Your task to perform on an android device: What's the weather? Image 0: 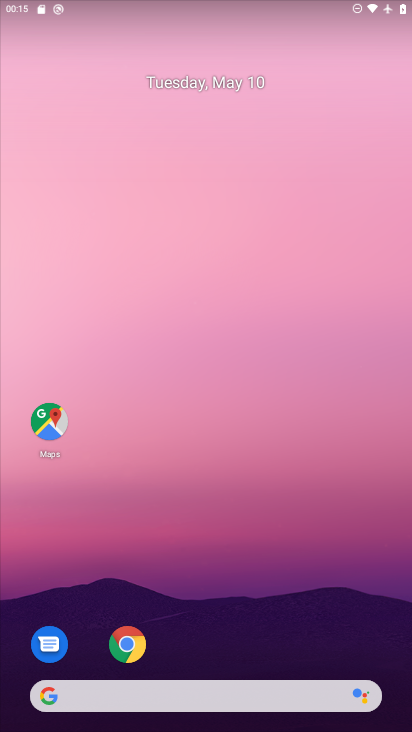
Step 0: drag from (218, 567) to (205, 318)
Your task to perform on an android device: What's the weather? Image 1: 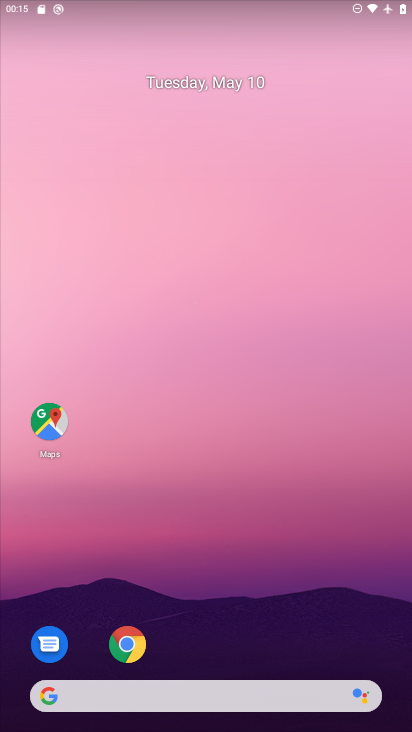
Step 1: drag from (260, 649) to (257, 148)
Your task to perform on an android device: What's the weather? Image 2: 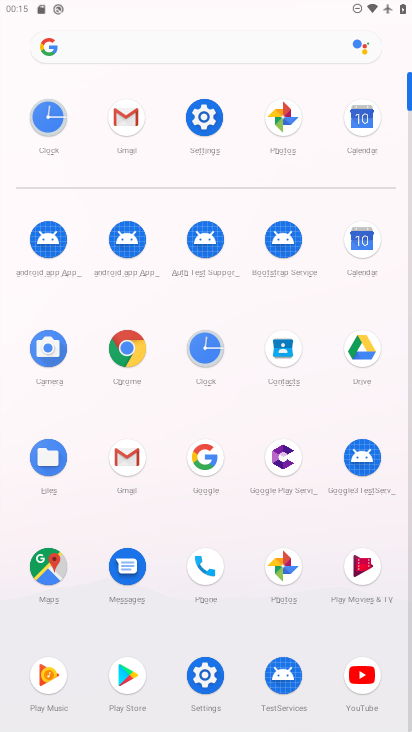
Step 2: click (200, 452)
Your task to perform on an android device: What's the weather? Image 3: 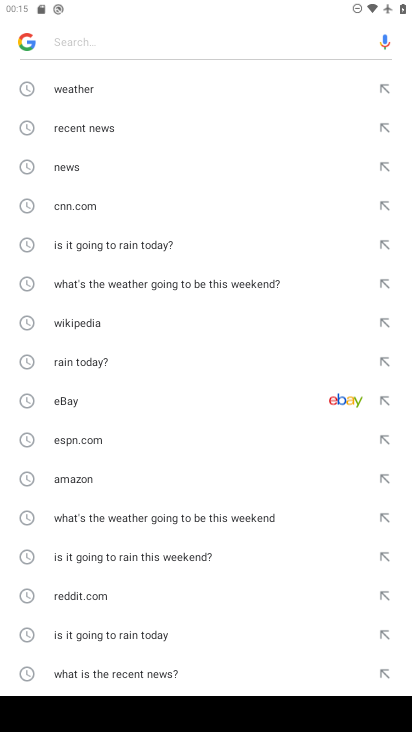
Step 3: click (94, 92)
Your task to perform on an android device: What's the weather? Image 4: 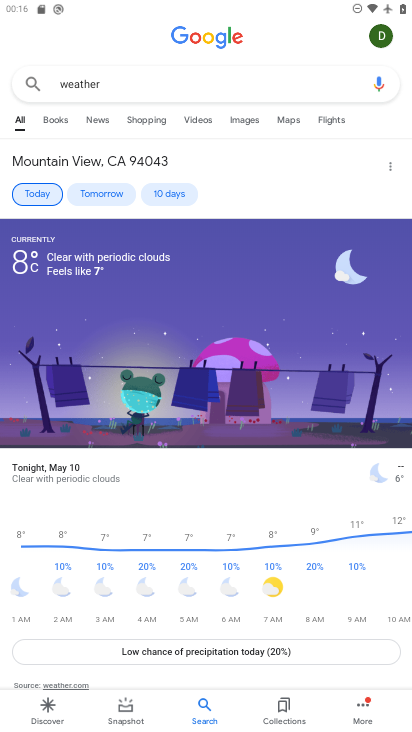
Step 4: task complete